Your task to perform on an android device: Open Reddit.com Image 0: 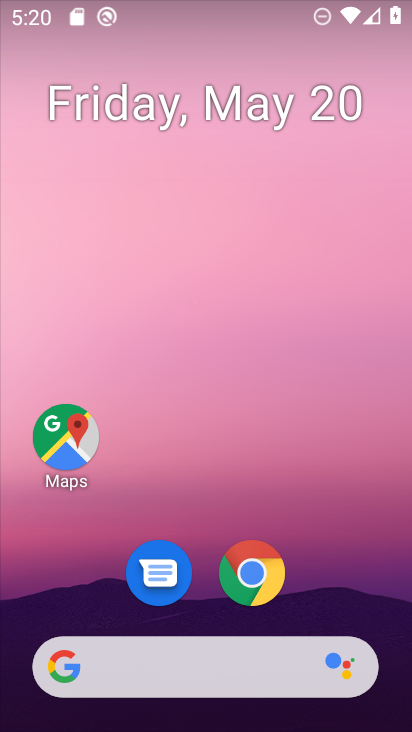
Step 0: click (256, 566)
Your task to perform on an android device: Open Reddit.com Image 1: 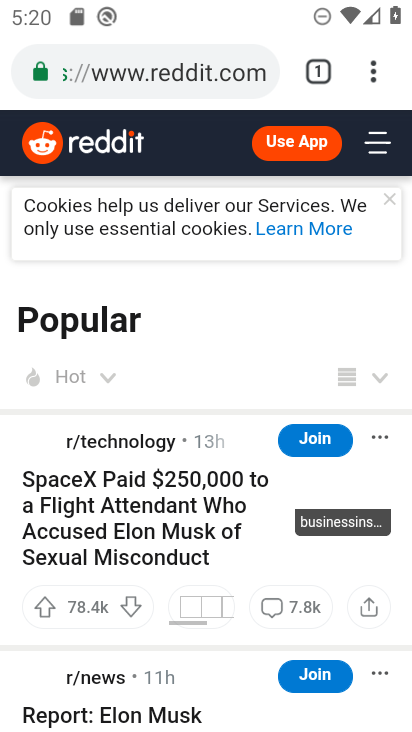
Step 1: task complete